Your task to perform on an android device: Go to Yahoo.com Image 0: 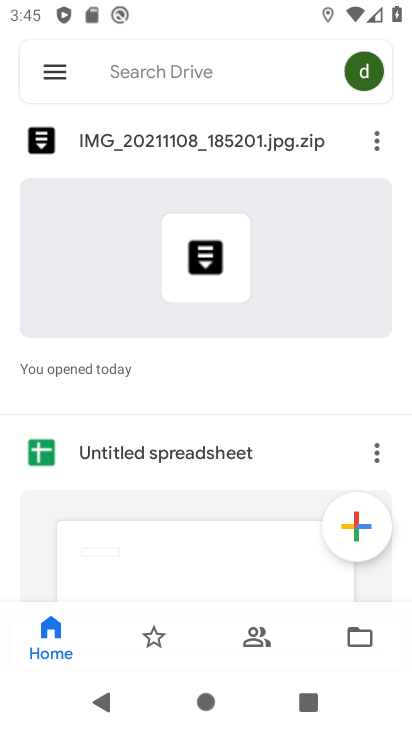
Step 0: press home button
Your task to perform on an android device: Go to Yahoo.com Image 1: 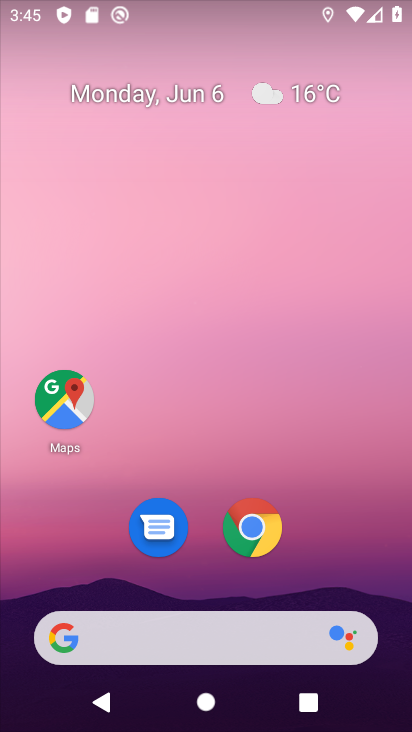
Step 1: click (251, 531)
Your task to perform on an android device: Go to Yahoo.com Image 2: 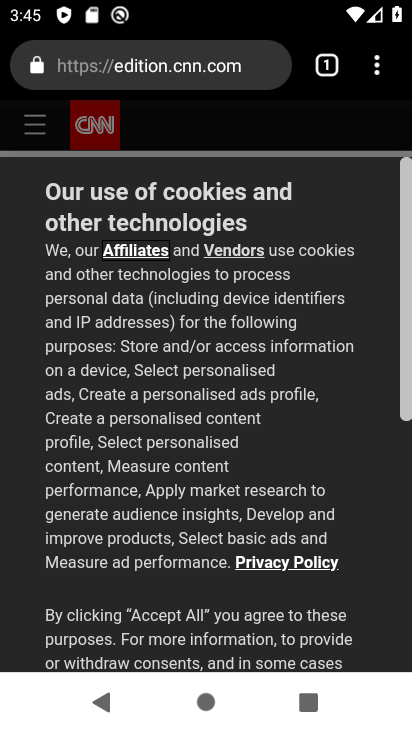
Step 2: click (375, 71)
Your task to perform on an android device: Go to Yahoo.com Image 3: 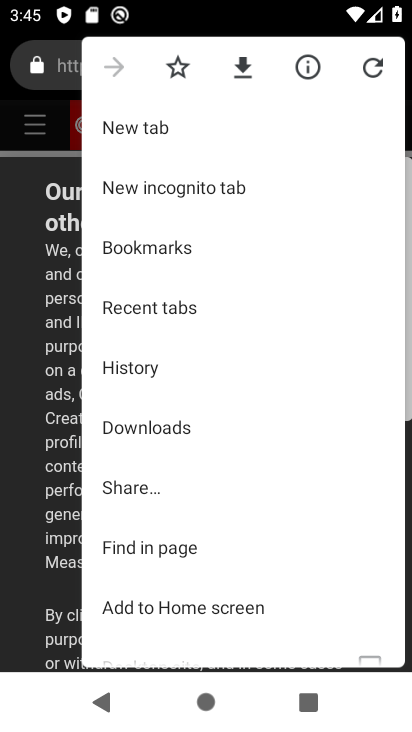
Step 3: click (13, 223)
Your task to perform on an android device: Go to Yahoo.com Image 4: 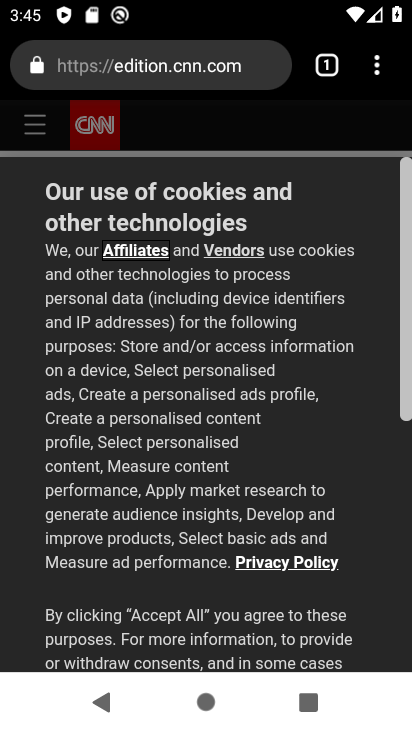
Step 4: click (328, 62)
Your task to perform on an android device: Go to Yahoo.com Image 5: 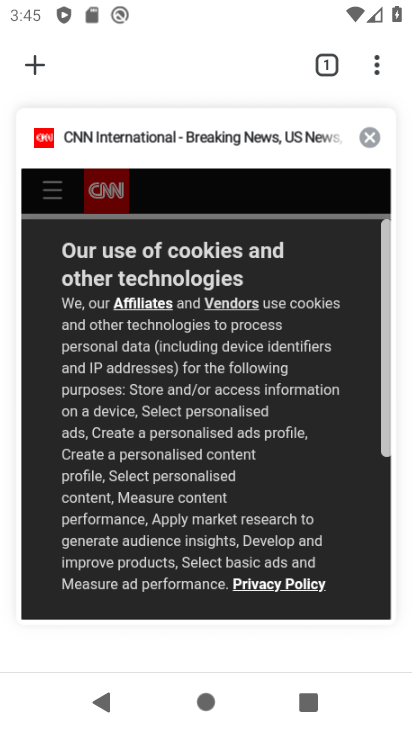
Step 5: click (31, 66)
Your task to perform on an android device: Go to Yahoo.com Image 6: 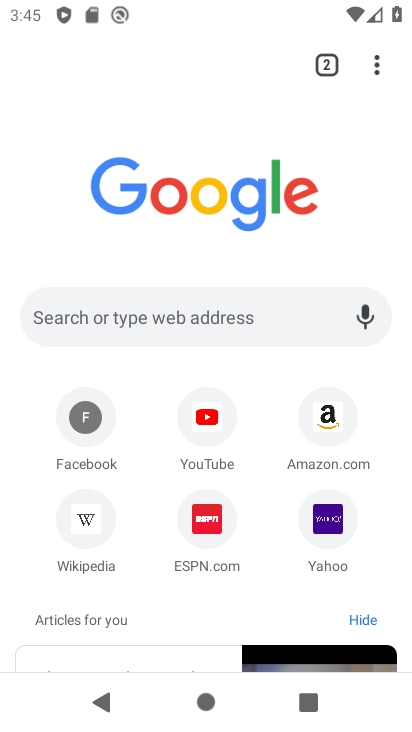
Step 6: click (330, 510)
Your task to perform on an android device: Go to Yahoo.com Image 7: 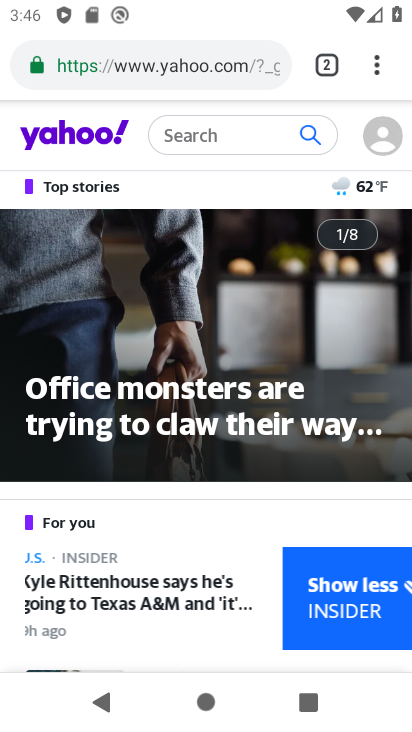
Step 7: task complete